Your task to perform on an android device: change text size in settings app Image 0: 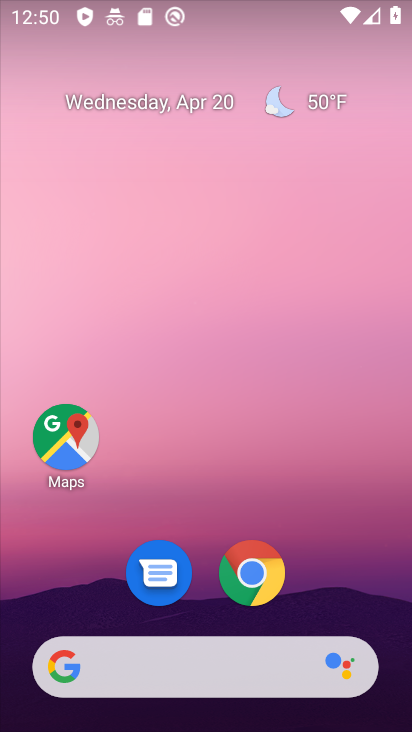
Step 0: drag from (355, 587) to (246, 25)
Your task to perform on an android device: change text size in settings app Image 1: 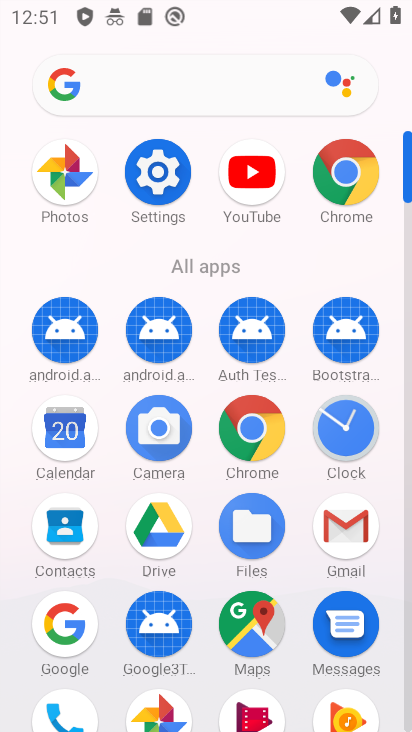
Step 1: click (160, 183)
Your task to perform on an android device: change text size in settings app Image 2: 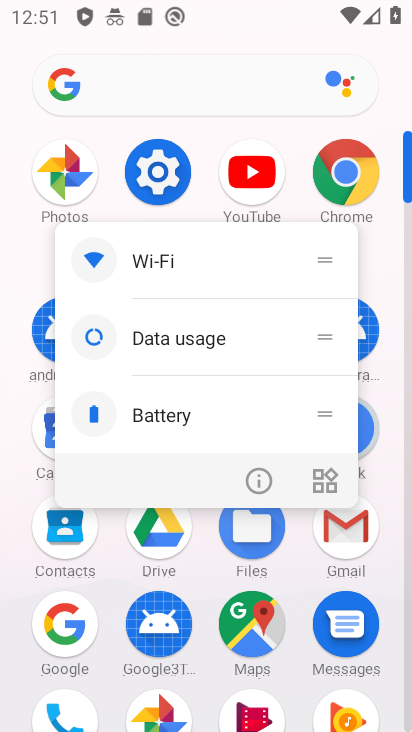
Step 2: click (147, 173)
Your task to perform on an android device: change text size in settings app Image 3: 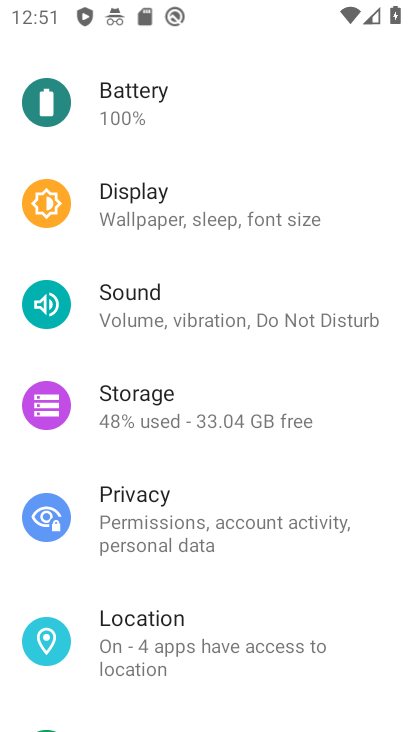
Step 3: click (146, 192)
Your task to perform on an android device: change text size in settings app Image 4: 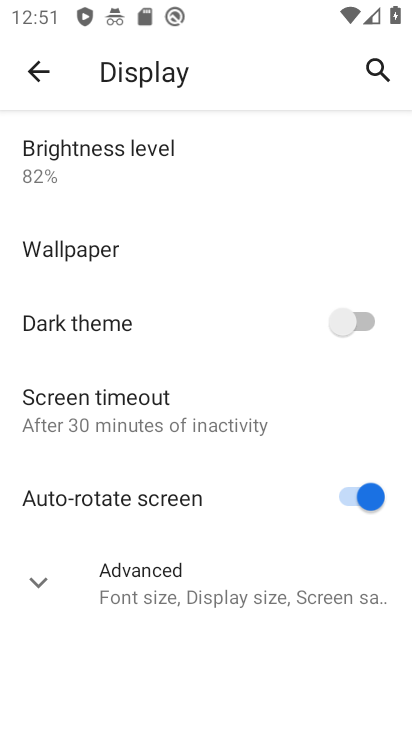
Step 4: click (43, 580)
Your task to perform on an android device: change text size in settings app Image 5: 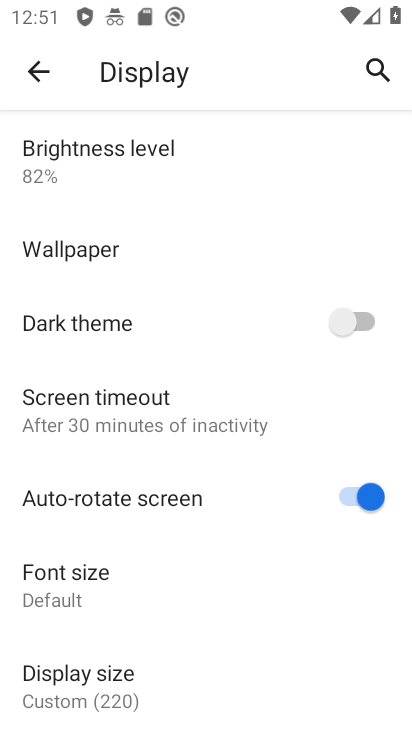
Step 5: click (47, 582)
Your task to perform on an android device: change text size in settings app Image 6: 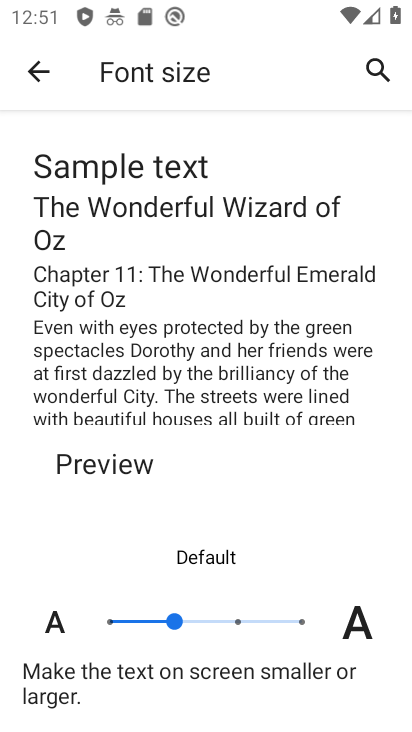
Step 6: click (231, 611)
Your task to perform on an android device: change text size in settings app Image 7: 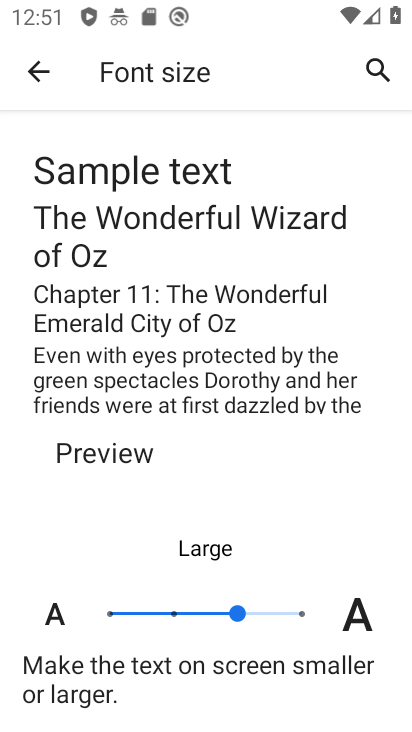
Step 7: task complete